Your task to perform on an android device: Search for a home improvement project you can do. Image 0: 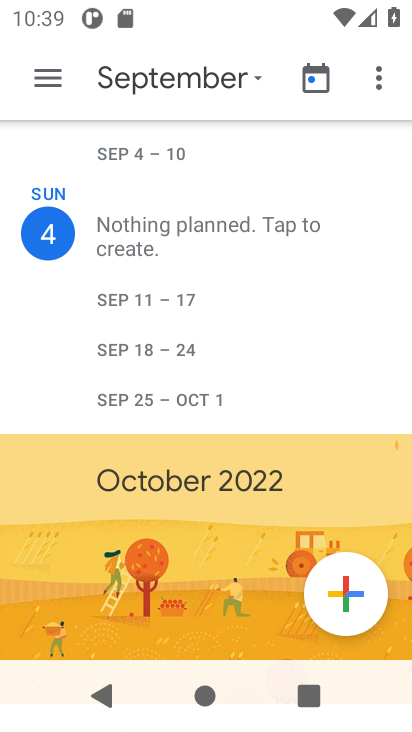
Step 0: task complete